Your task to perform on an android device: open device folders in google photos Image 0: 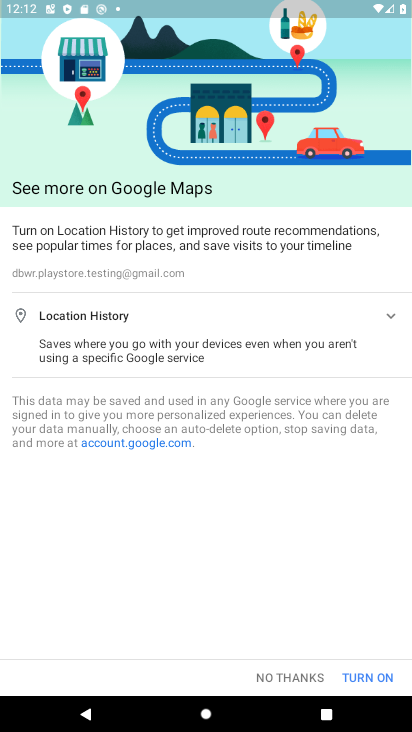
Step 0: press home button
Your task to perform on an android device: open device folders in google photos Image 1: 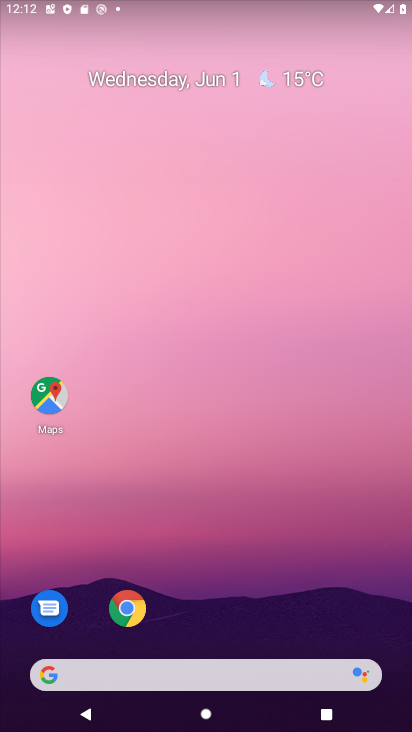
Step 1: drag from (227, 446) to (268, 296)
Your task to perform on an android device: open device folders in google photos Image 2: 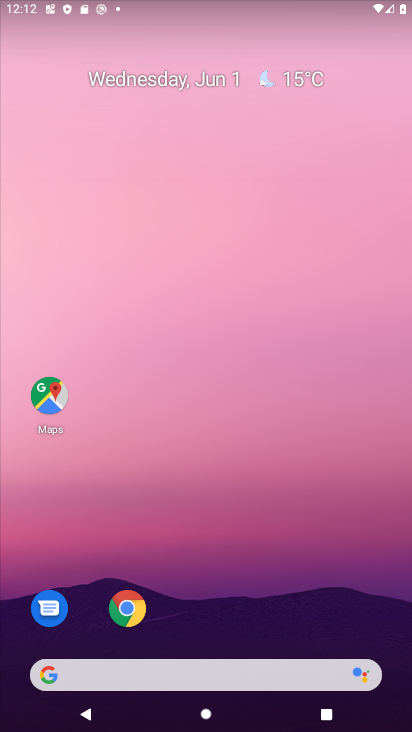
Step 2: drag from (223, 626) to (311, 125)
Your task to perform on an android device: open device folders in google photos Image 3: 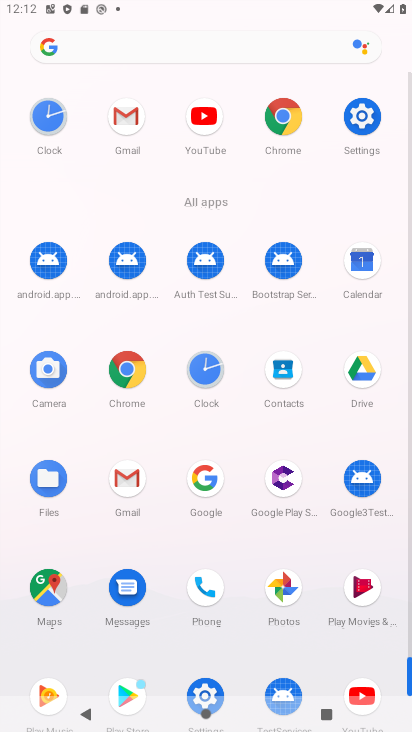
Step 3: click (284, 595)
Your task to perform on an android device: open device folders in google photos Image 4: 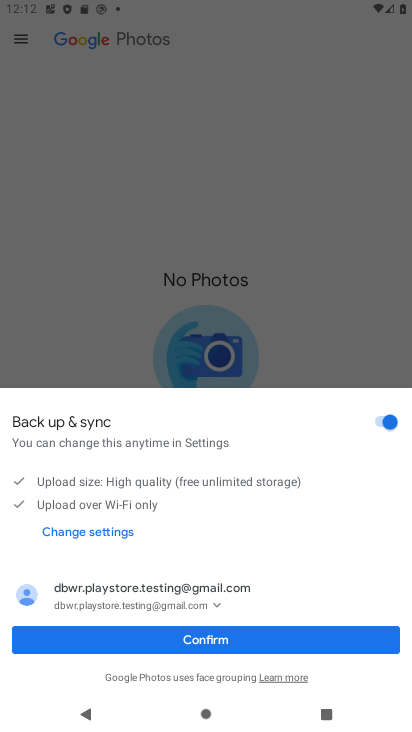
Step 4: click (254, 638)
Your task to perform on an android device: open device folders in google photos Image 5: 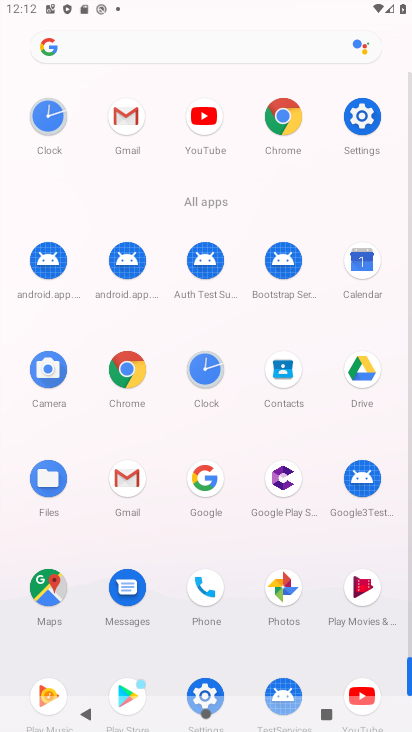
Step 5: click (283, 592)
Your task to perform on an android device: open device folders in google photos Image 6: 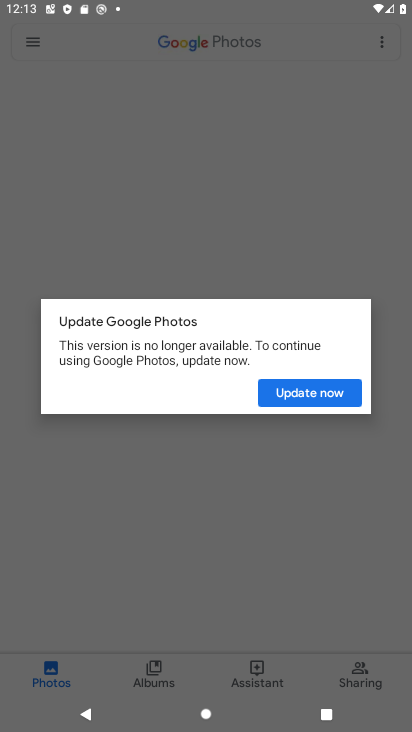
Step 6: click (302, 395)
Your task to perform on an android device: open device folders in google photos Image 7: 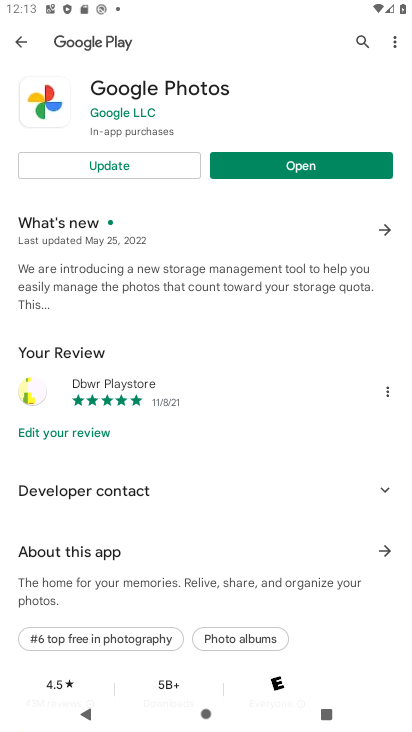
Step 7: click (256, 150)
Your task to perform on an android device: open device folders in google photos Image 8: 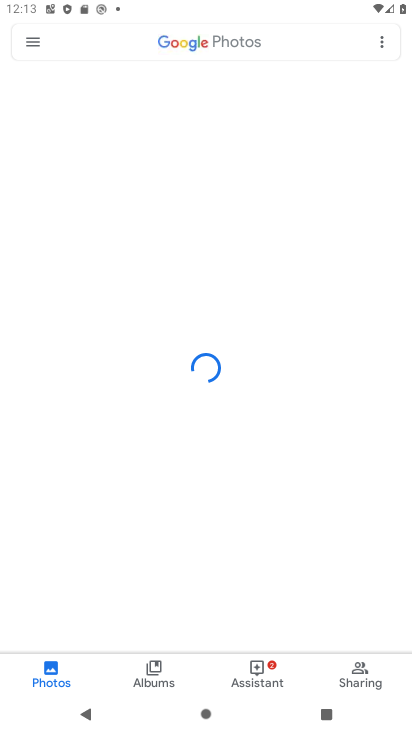
Step 8: click (28, 41)
Your task to perform on an android device: open device folders in google photos Image 9: 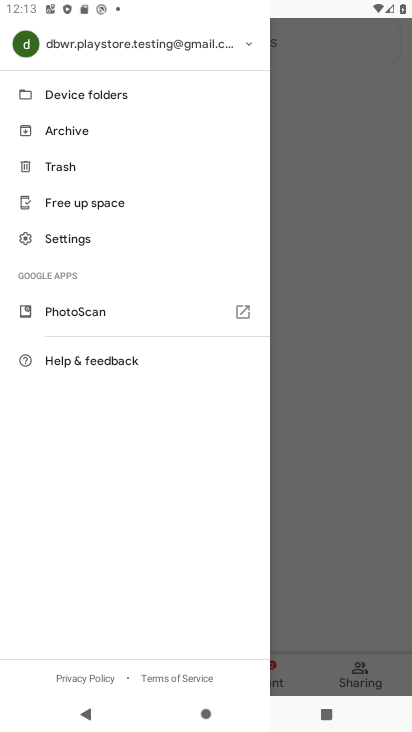
Step 9: click (88, 96)
Your task to perform on an android device: open device folders in google photos Image 10: 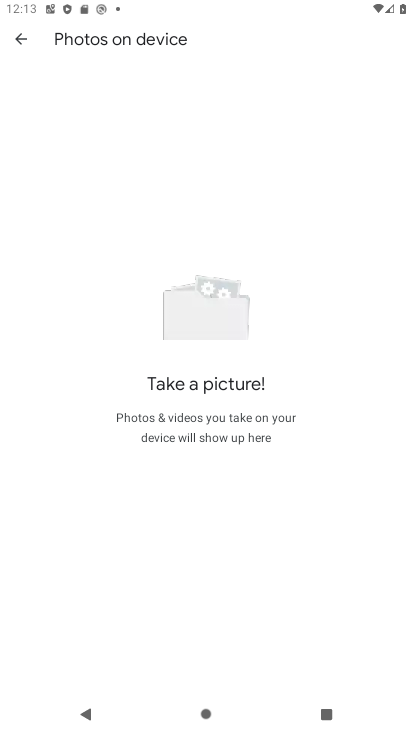
Step 10: task complete